Your task to perform on an android device: empty trash in the gmail app Image 0: 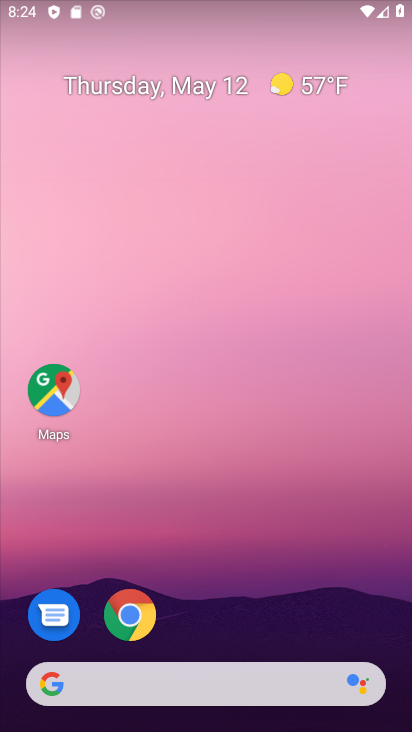
Step 0: drag from (295, 541) to (231, 52)
Your task to perform on an android device: empty trash in the gmail app Image 1: 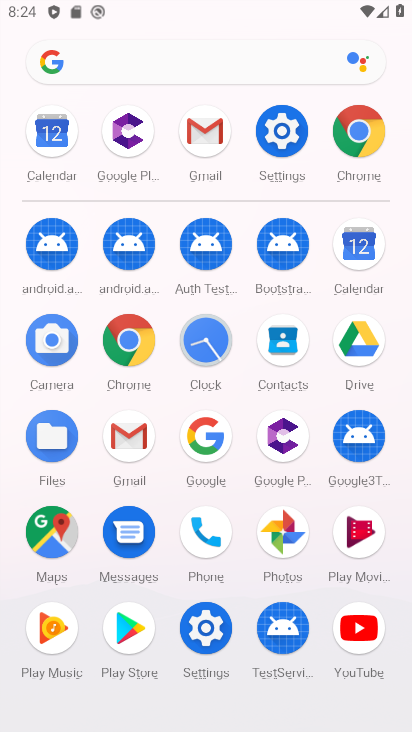
Step 1: drag from (6, 550) to (11, 313)
Your task to perform on an android device: empty trash in the gmail app Image 2: 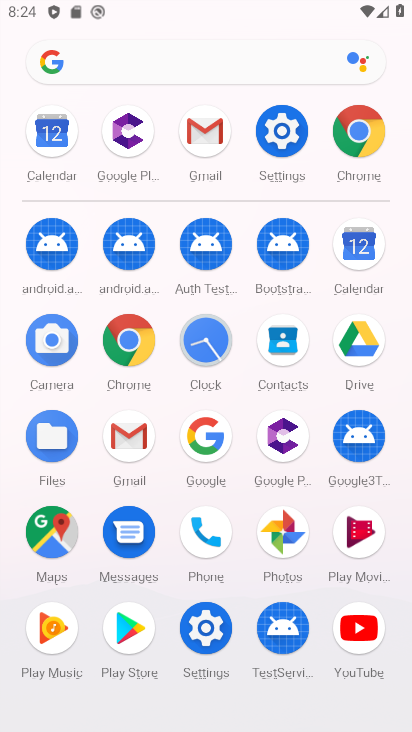
Step 2: click (126, 435)
Your task to perform on an android device: empty trash in the gmail app Image 3: 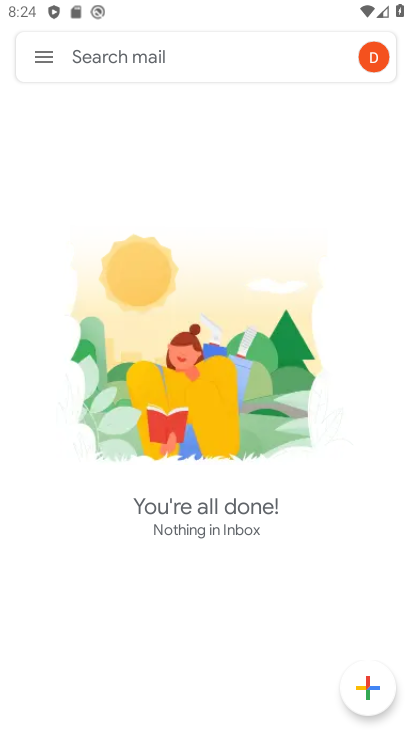
Step 3: click (43, 52)
Your task to perform on an android device: empty trash in the gmail app Image 4: 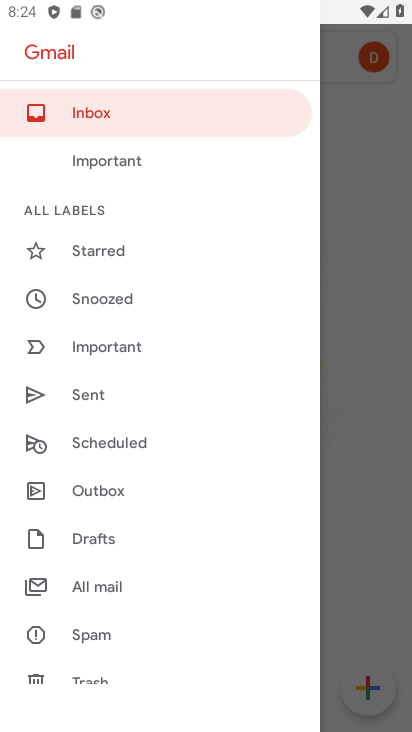
Step 4: drag from (109, 639) to (139, 348)
Your task to perform on an android device: empty trash in the gmail app Image 5: 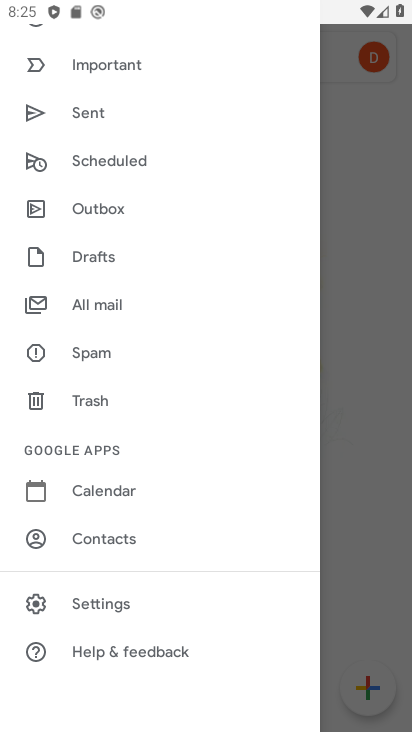
Step 5: click (94, 387)
Your task to perform on an android device: empty trash in the gmail app Image 6: 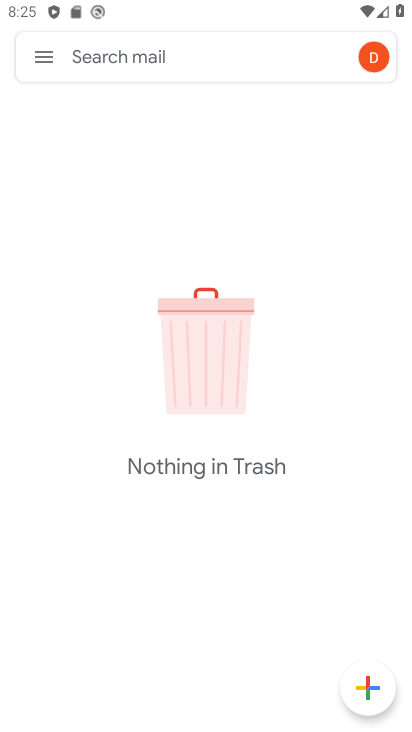
Step 6: task complete